Your task to perform on an android device: Open the web browser Image 0: 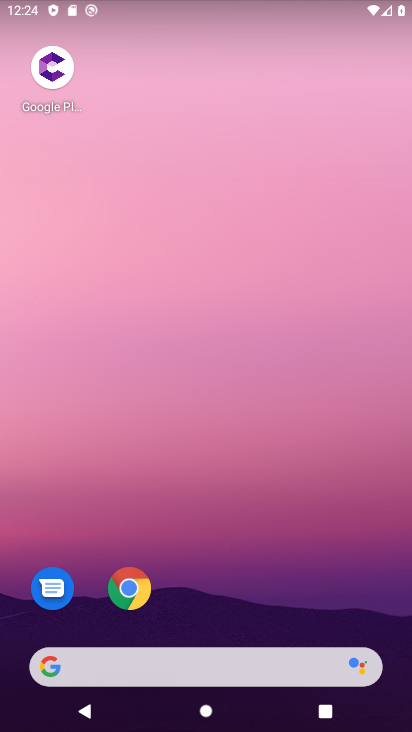
Step 0: click (124, 584)
Your task to perform on an android device: Open the web browser Image 1: 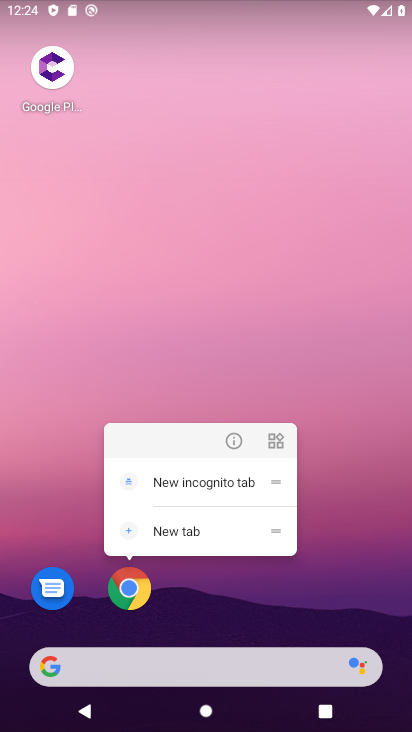
Step 1: click (113, 588)
Your task to perform on an android device: Open the web browser Image 2: 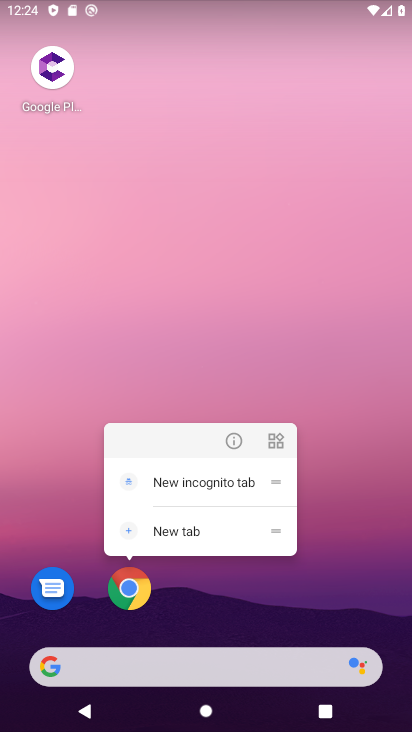
Step 2: click (124, 600)
Your task to perform on an android device: Open the web browser Image 3: 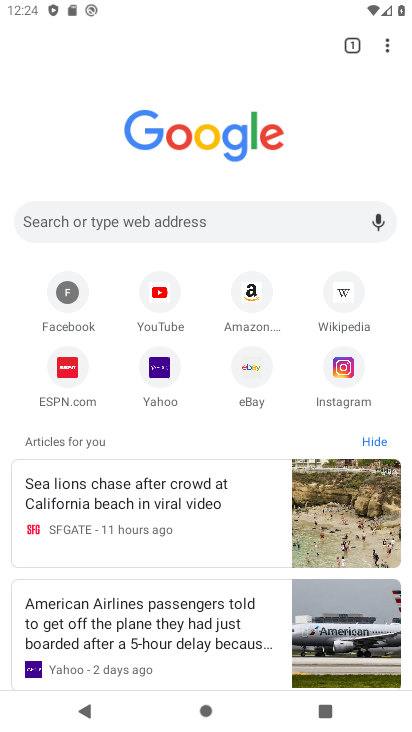
Step 3: task complete